Your task to perform on an android device: turn off improve location accuracy Image 0: 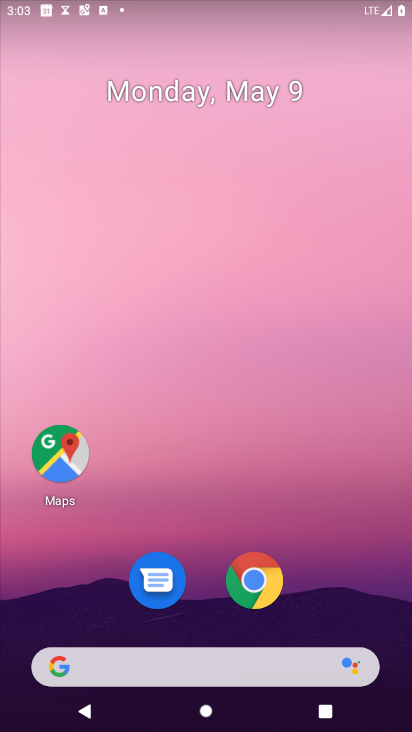
Step 0: drag from (334, 603) to (267, 152)
Your task to perform on an android device: turn off improve location accuracy Image 1: 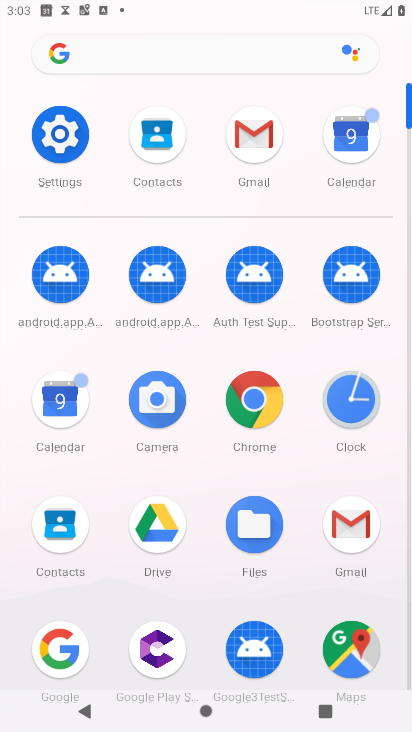
Step 1: click (83, 141)
Your task to perform on an android device: turn off improve location accuracy Image 2: 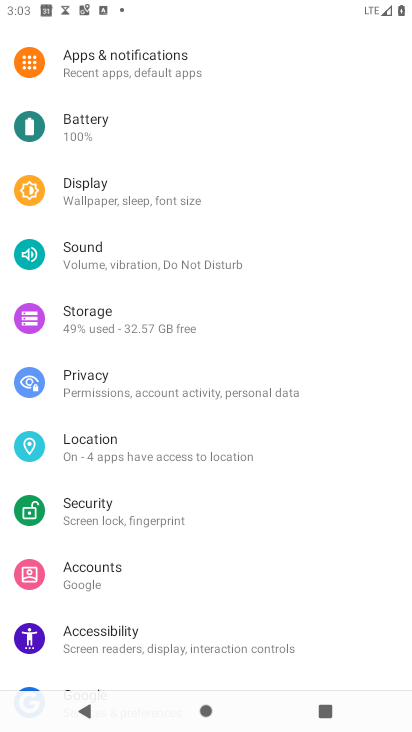
Step 2: click (153, 453)
Your task to perform on an android device: turn off improve location accuracy Image 3: 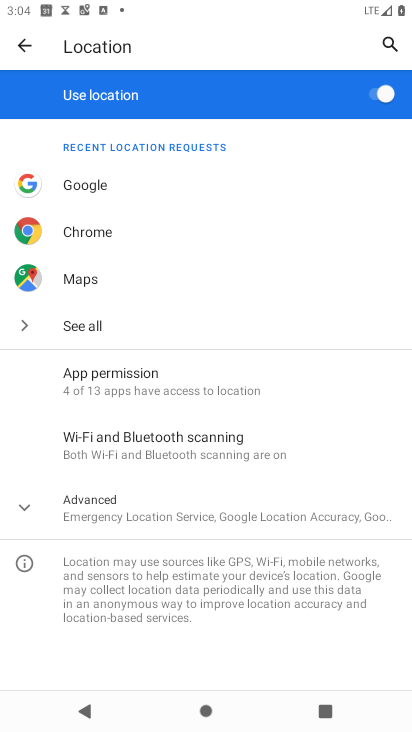
Step 3: click (200, 507)
Your task to perform on an android device: turn off improve location accuracy Image 4: 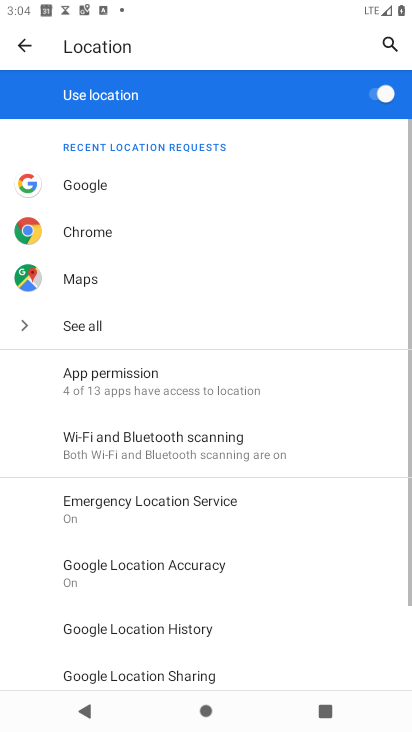
Step 4: drag from (215, 602) to (233, 373)
Your task to perform on an android device: turn off improve location accuracy Image 5: 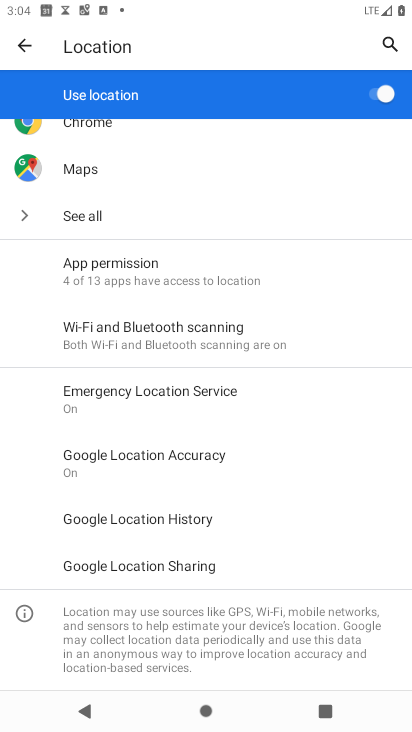
Step 5: click (216, 458)
Your task to perform on an android device: turn off improve location accuracy Image 6: 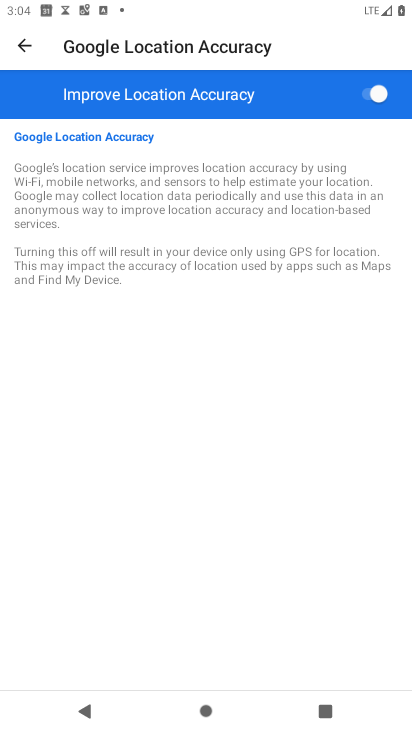
Step 6: click (374, 92)
Your task to perform on an android device: turn off improve location accuracy Image 7: 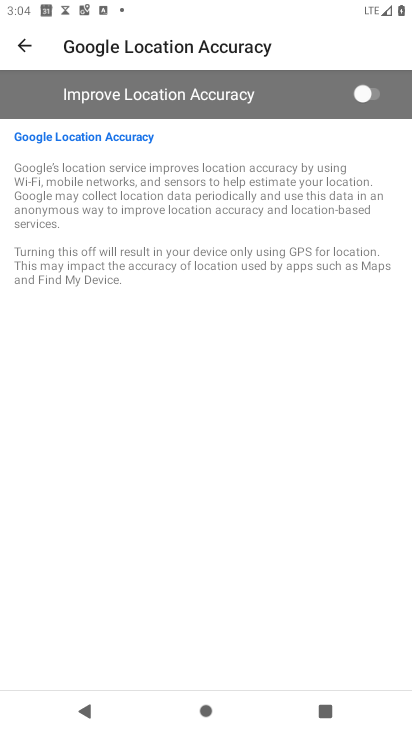
Step 7: task complete